Your task to perform on an android device: Go to eBay Image 0: 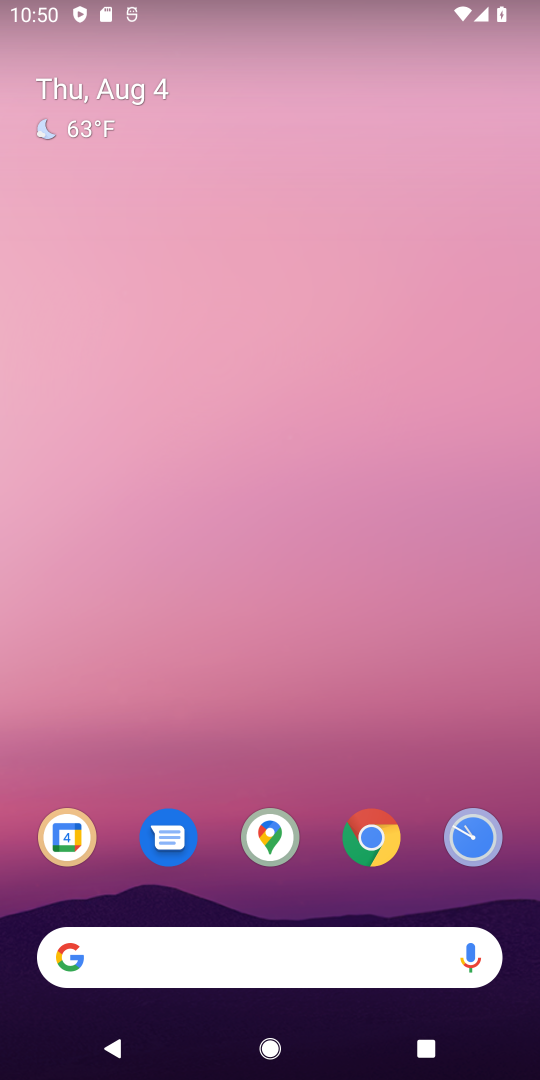
Step 0: drag from (307, 887) to (304, 70)
Your task to perform on an android device: Go to eBay Image 1: 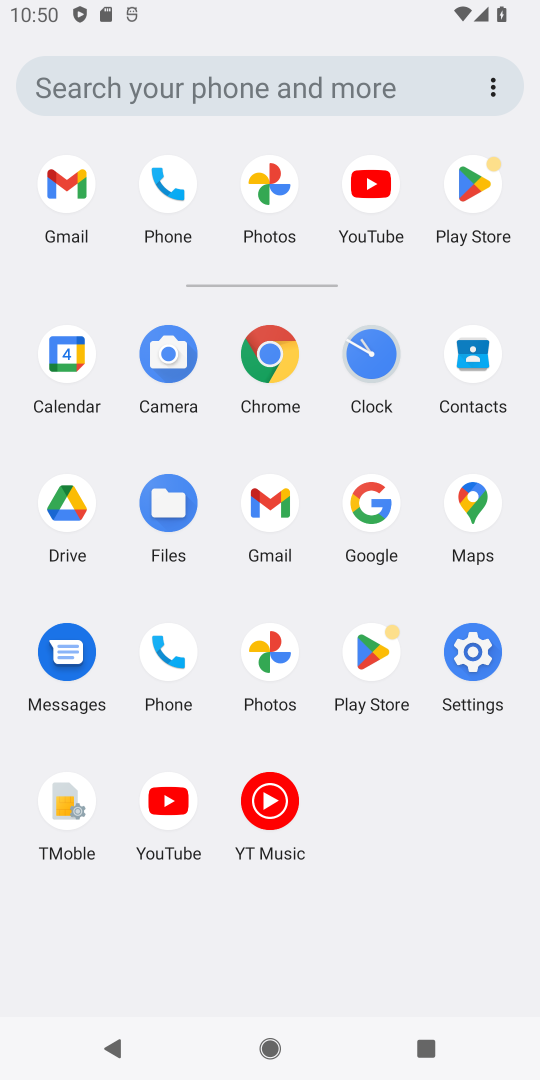
Step 1: click (265, 351)
Your task to perform on an android device: Go to eBay Image 2: 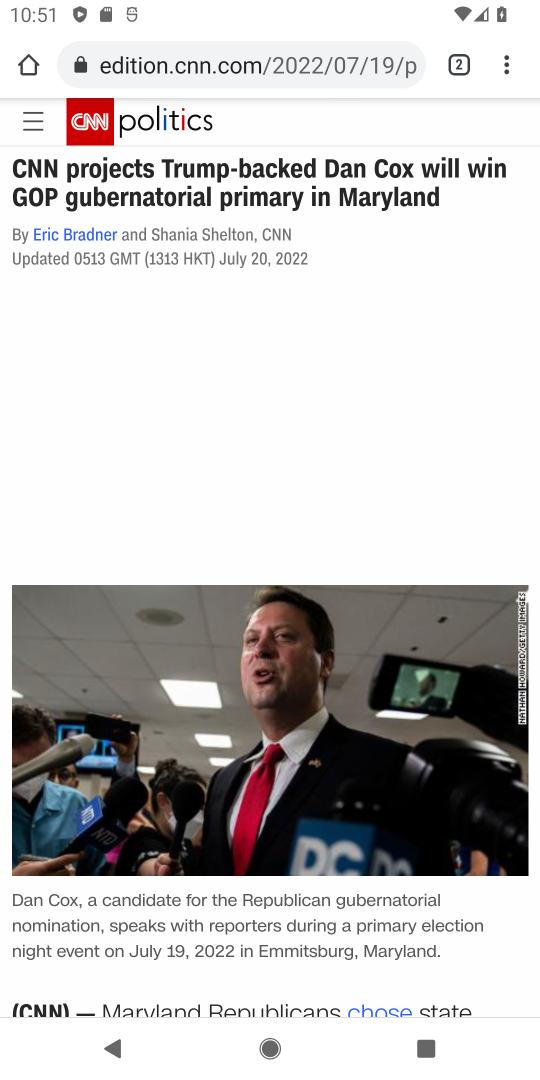
Step 2: click (459, 62)
Your task to perform on an android device: Go to eBay Image 3: 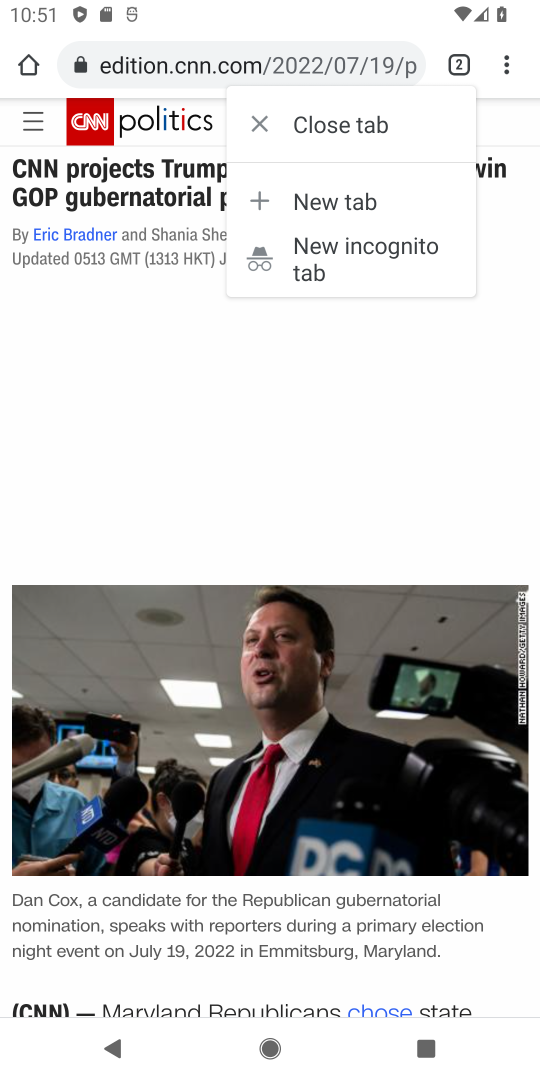
Step 3: click (363, 199)
Your task to perform on an android device: Go to eBay Image 4: 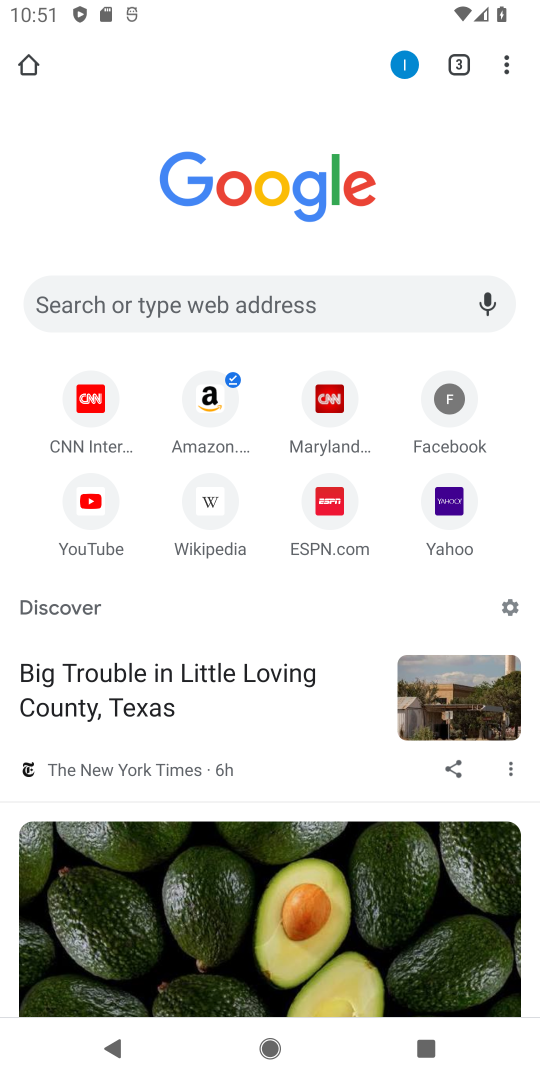
Step 4: click (144, 301)
Your task to perform on an android device: Go to eBay Image 5: 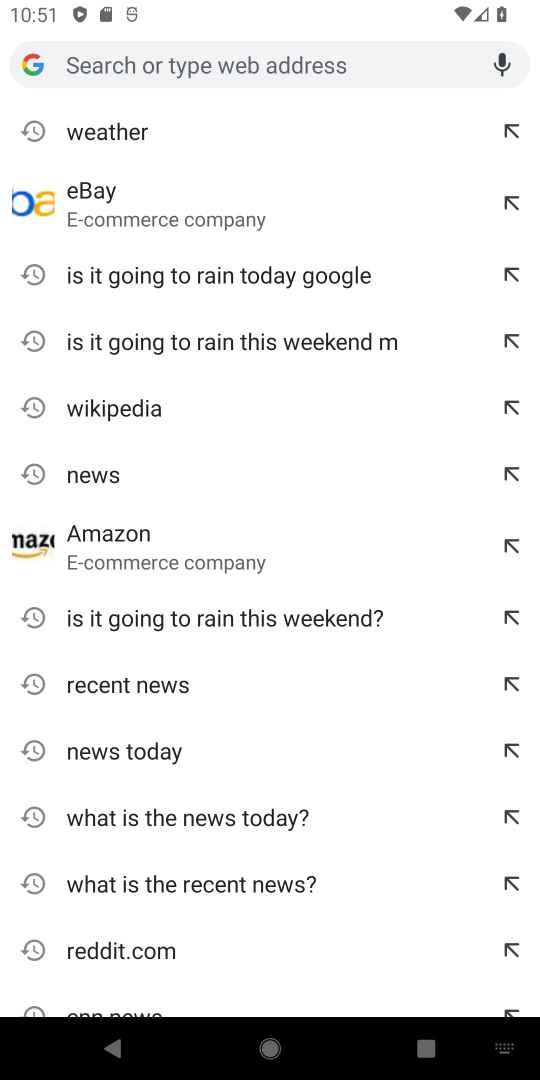
Step 5: type "ebay"
Your task to perform on an android device: Go to eBay Image 6: 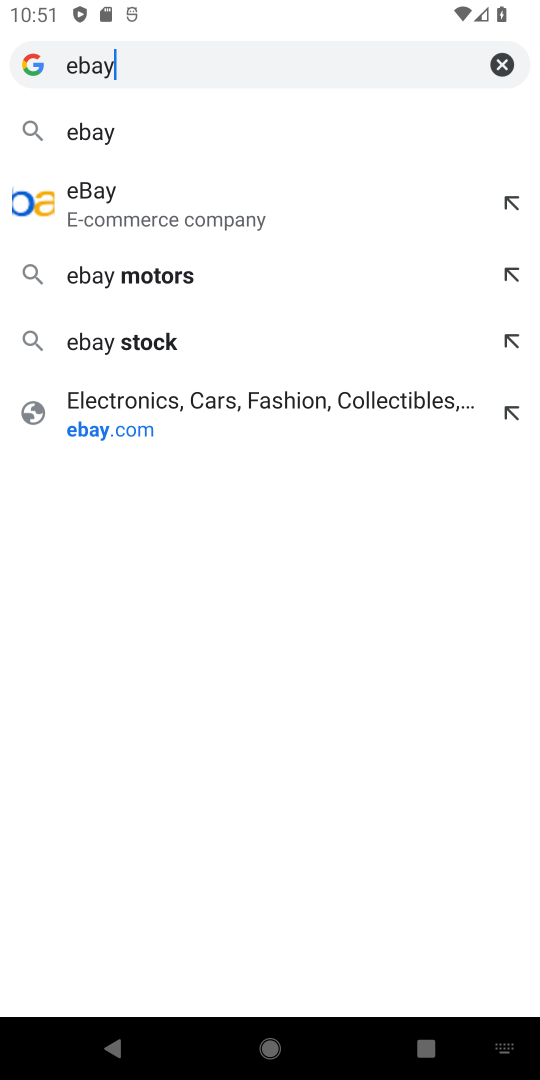
Step 6: click (183, 415)
Your task to perform on an android device: Go to eBay Image 7: 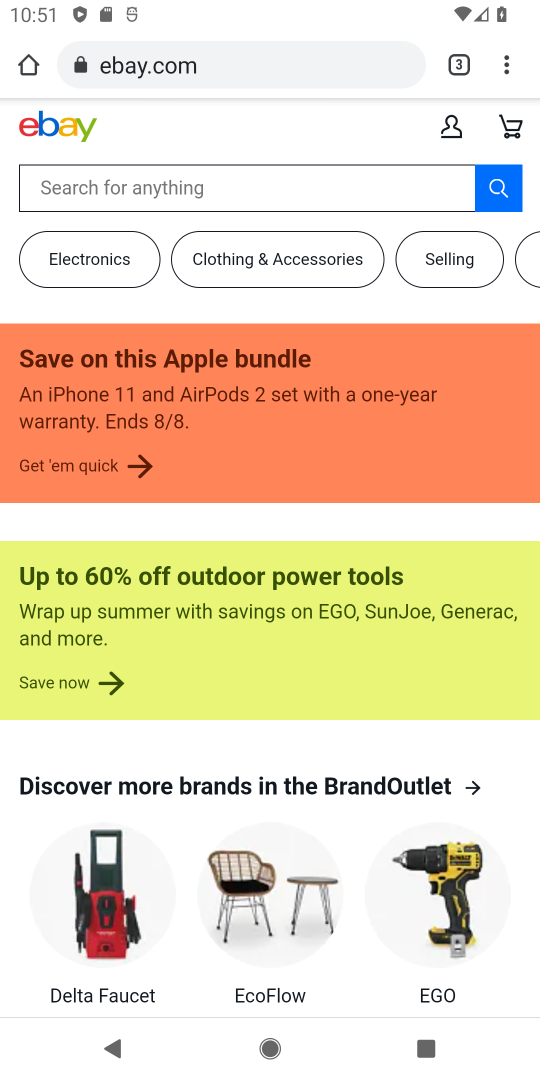
Step 7: task complete